Your task to perform on an android device: Open maps Image 0: 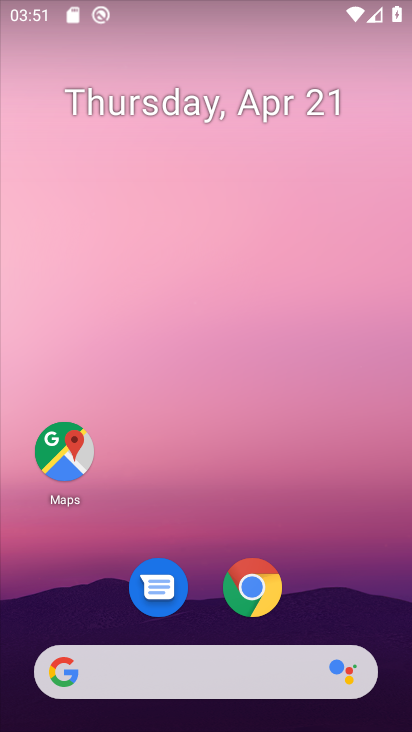
Step 0: drag from (350, 589) to (339, 249)
Your task to perform on an android device: Open maps Image 1: 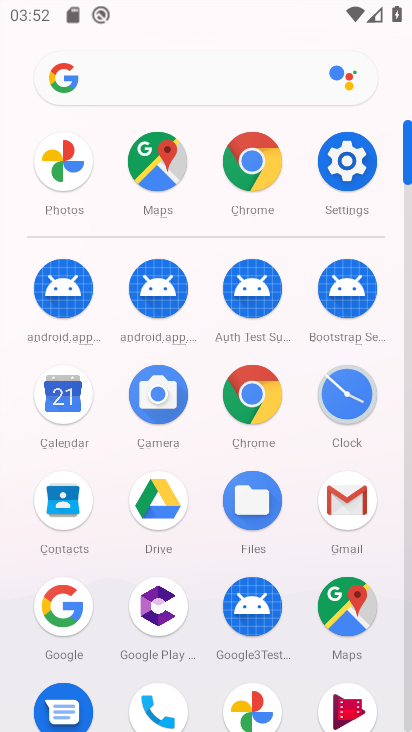
Step 1: click (353, 617)
Your task to perform on an android device: Open maps Image 2: 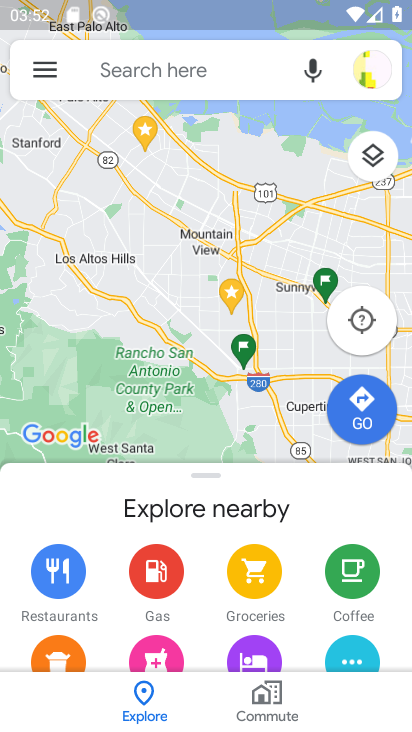
Step 2: task complete